Your task to perform on an android device: Show me some nice wallpapers for my laptop Image 0: 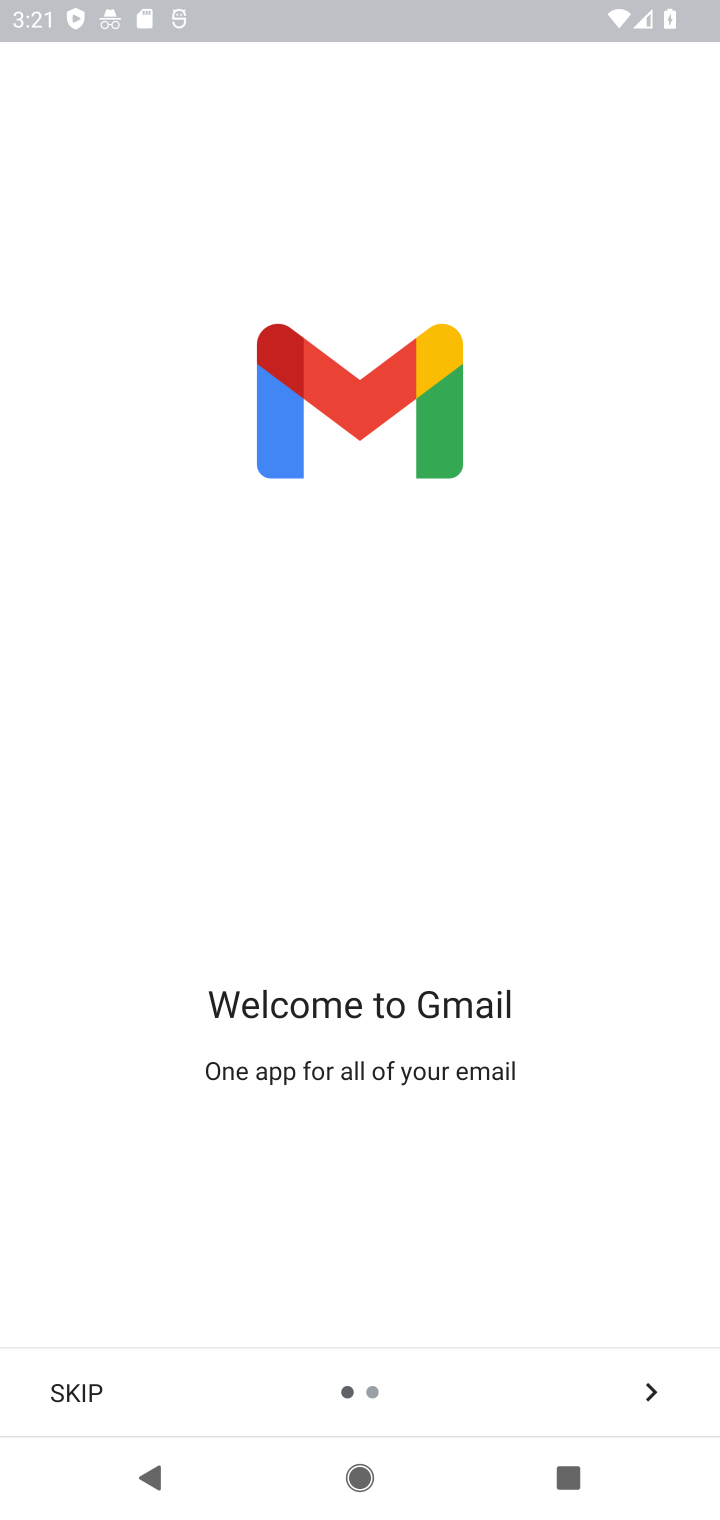
Step 0: press home button
Your task to perform on an android device: Show me some nice wallpapers for my laptop Image 1: 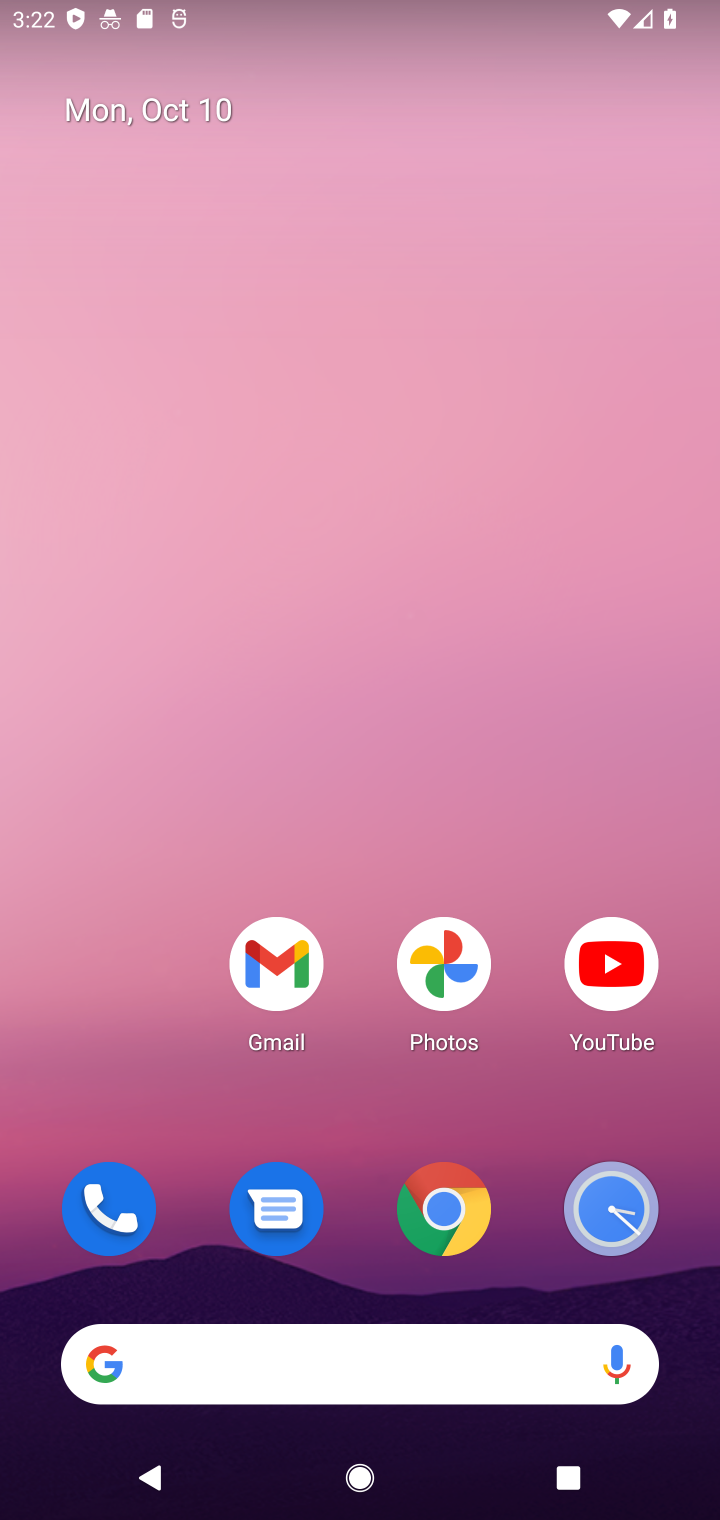
Step 1: click (456, 1215)
Your task to perform on an android device: Show me some nice wallpapers for my laptop Image 2: 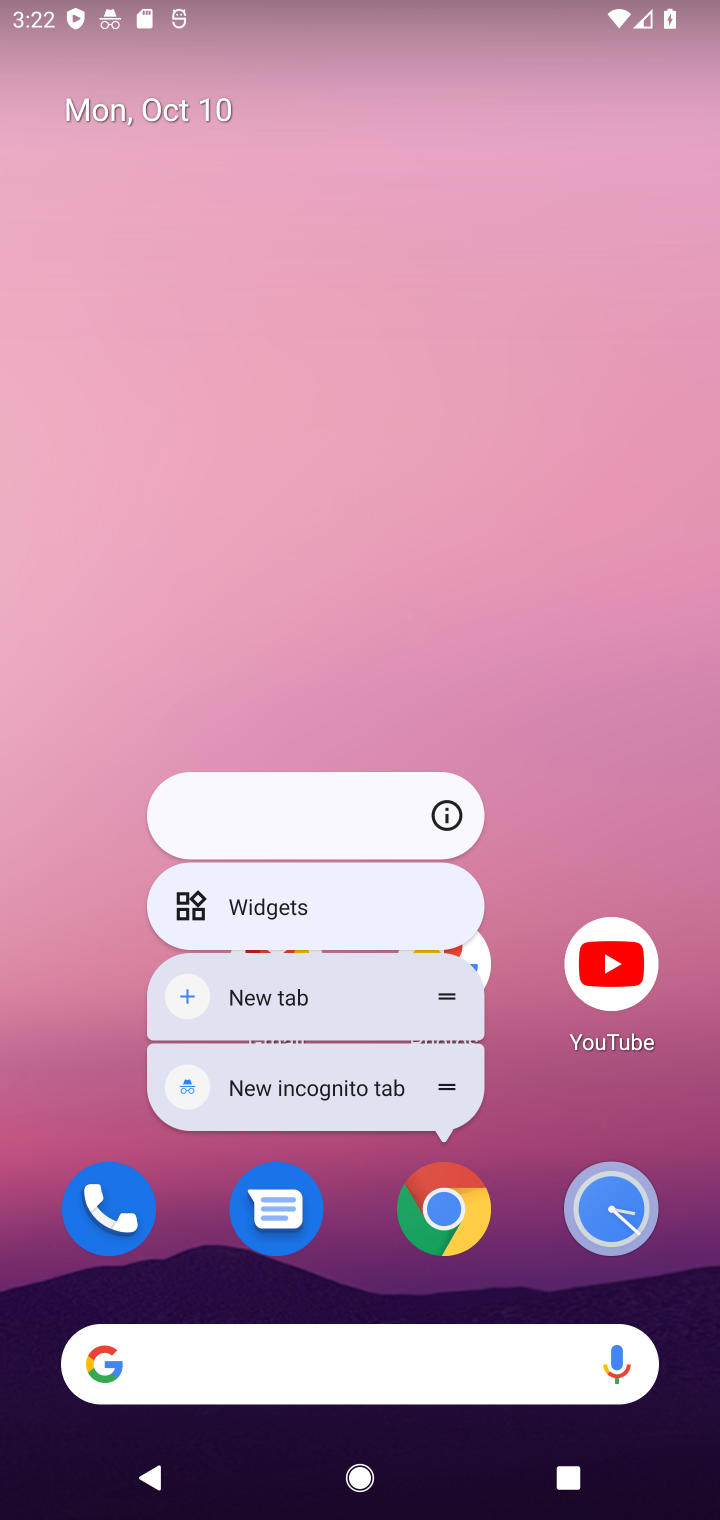
Step 2: click (431, 1220)
Your task to perform on an android device: Show me some nice wallpapers for my laptop Image 3: 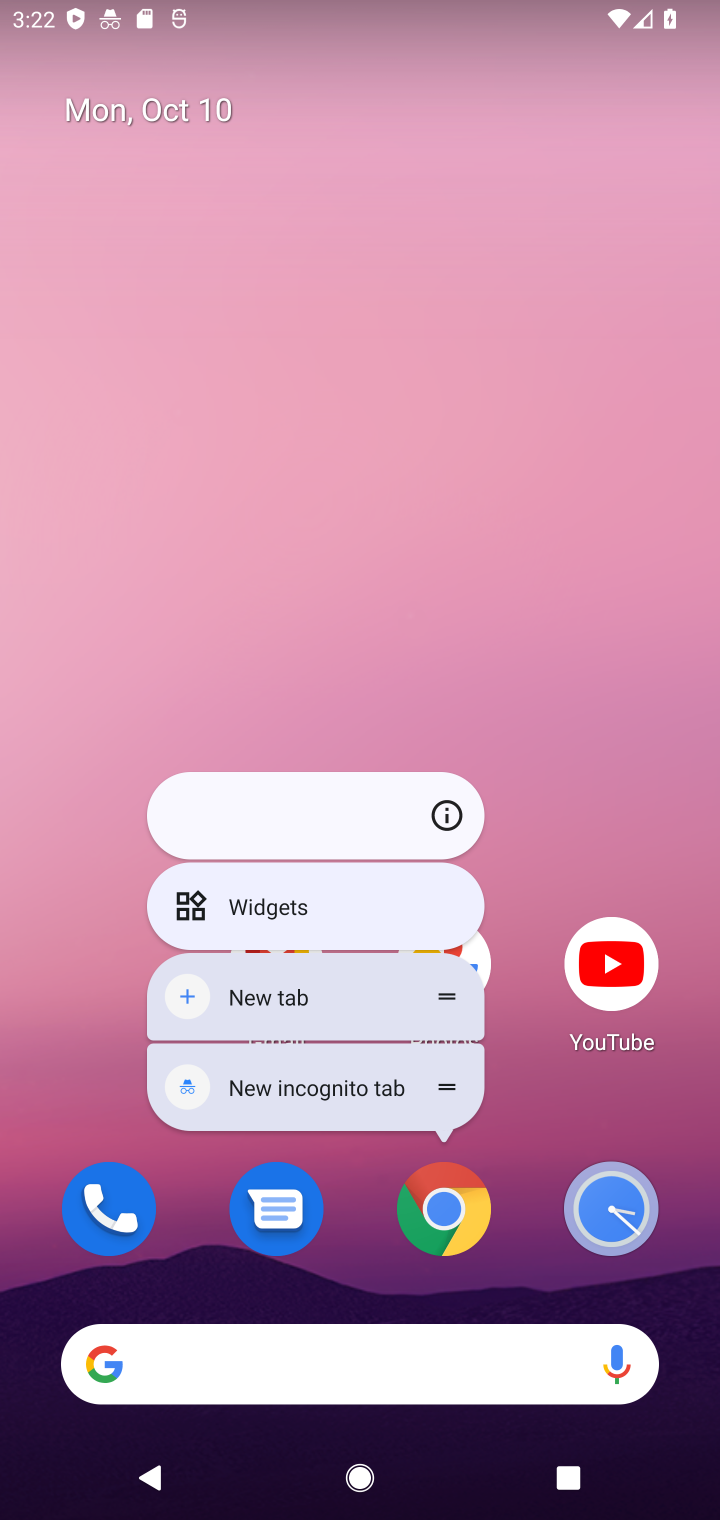
Step 3: click (431, 1220)
Your task to perform on an android device: Show me some nice wallpapers for my laptop Image 4: 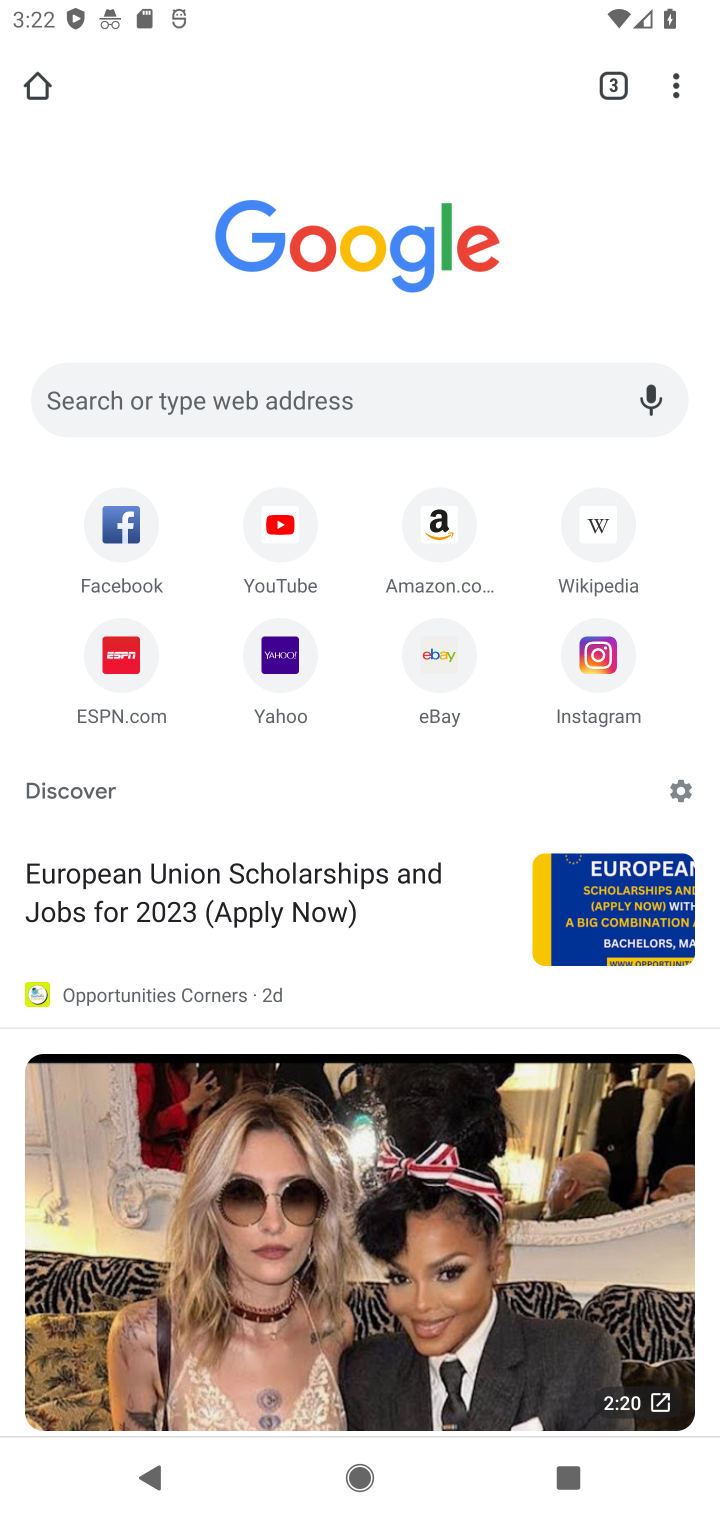
Step 4: click (276, 377)
Your task to perform on an android device: Show me some nice wallpapers for my laptop Image 5: 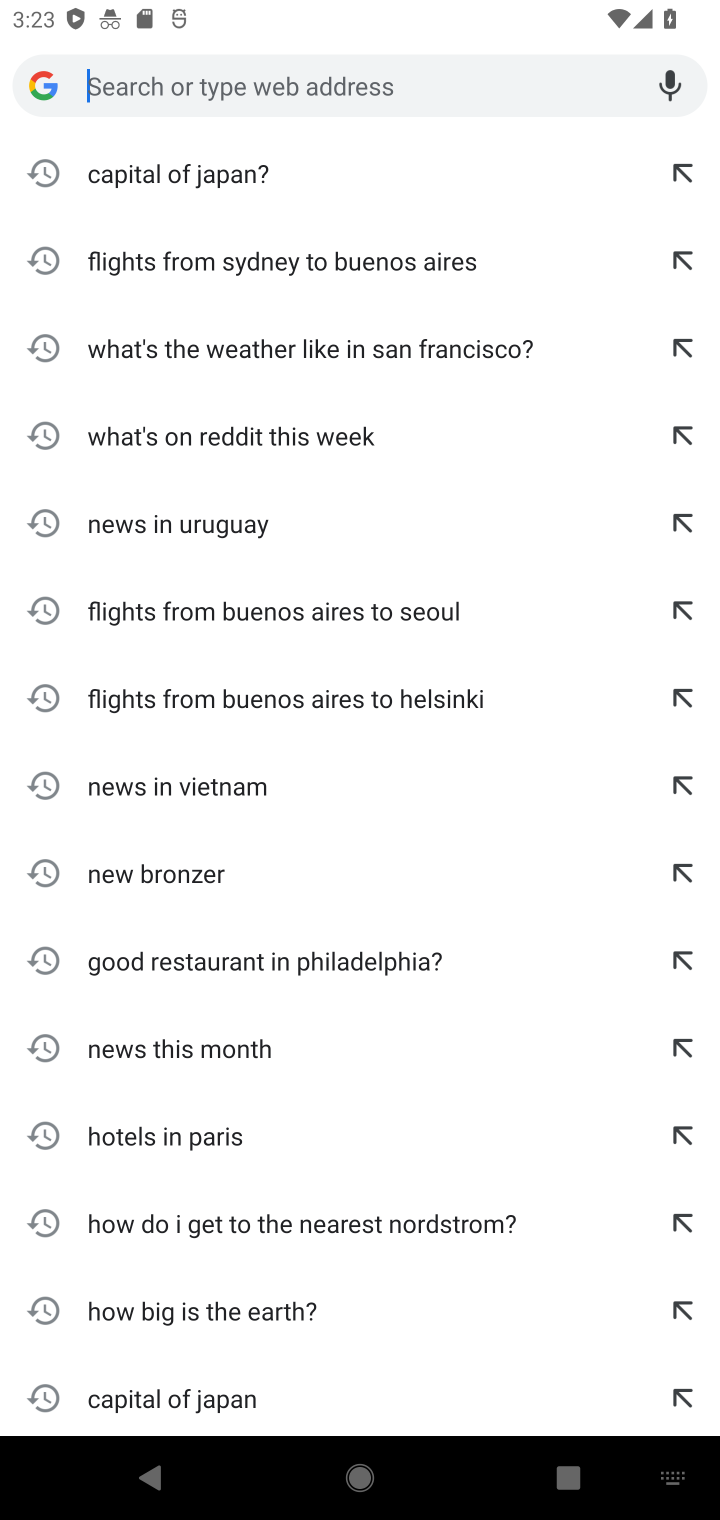
Step 5: type "some nice wallpapers for my laptop"
Your task to perform on an android device: Show me some nice wallpapers for my laptop Image 6: 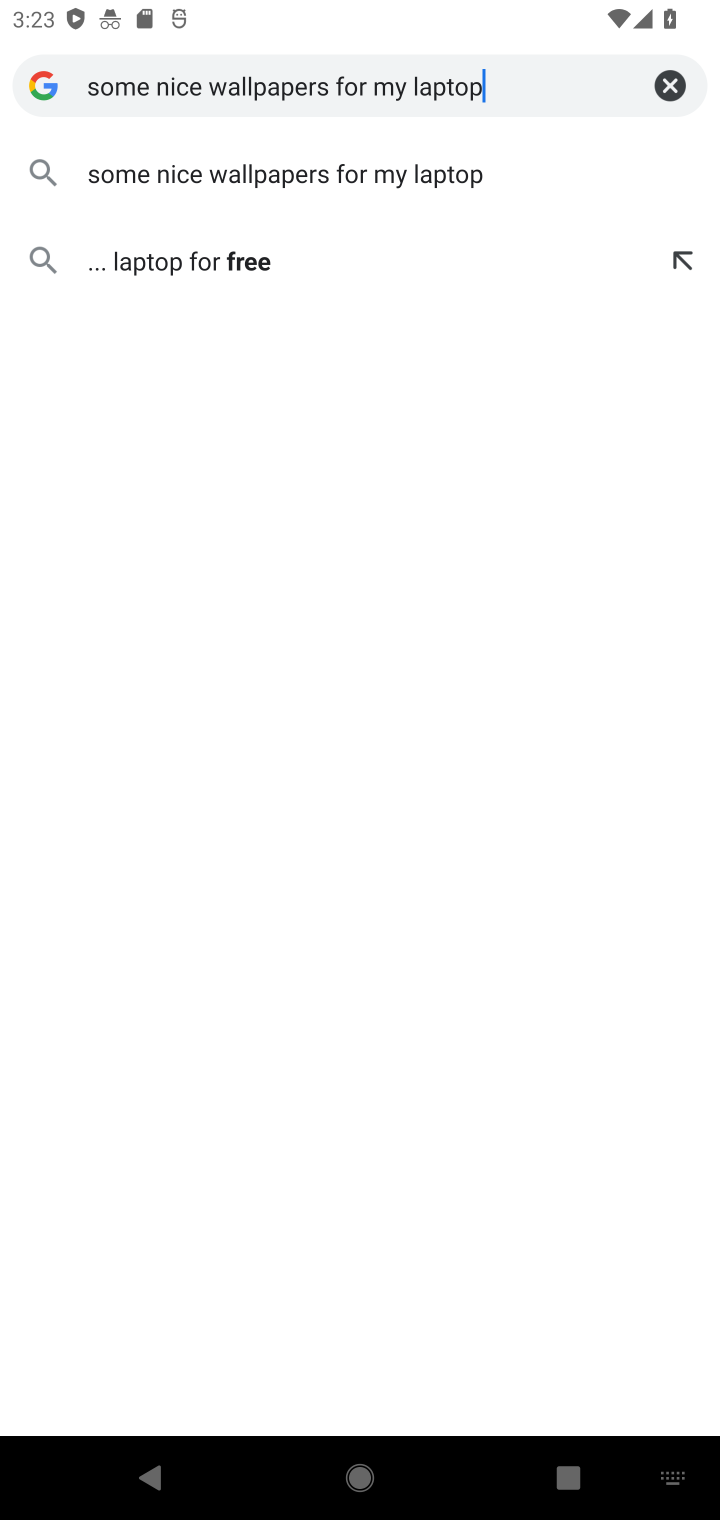
Step 6: press enter
Your task to perform on an android device: Show me some nice wallpapers for my laptop Image 7: 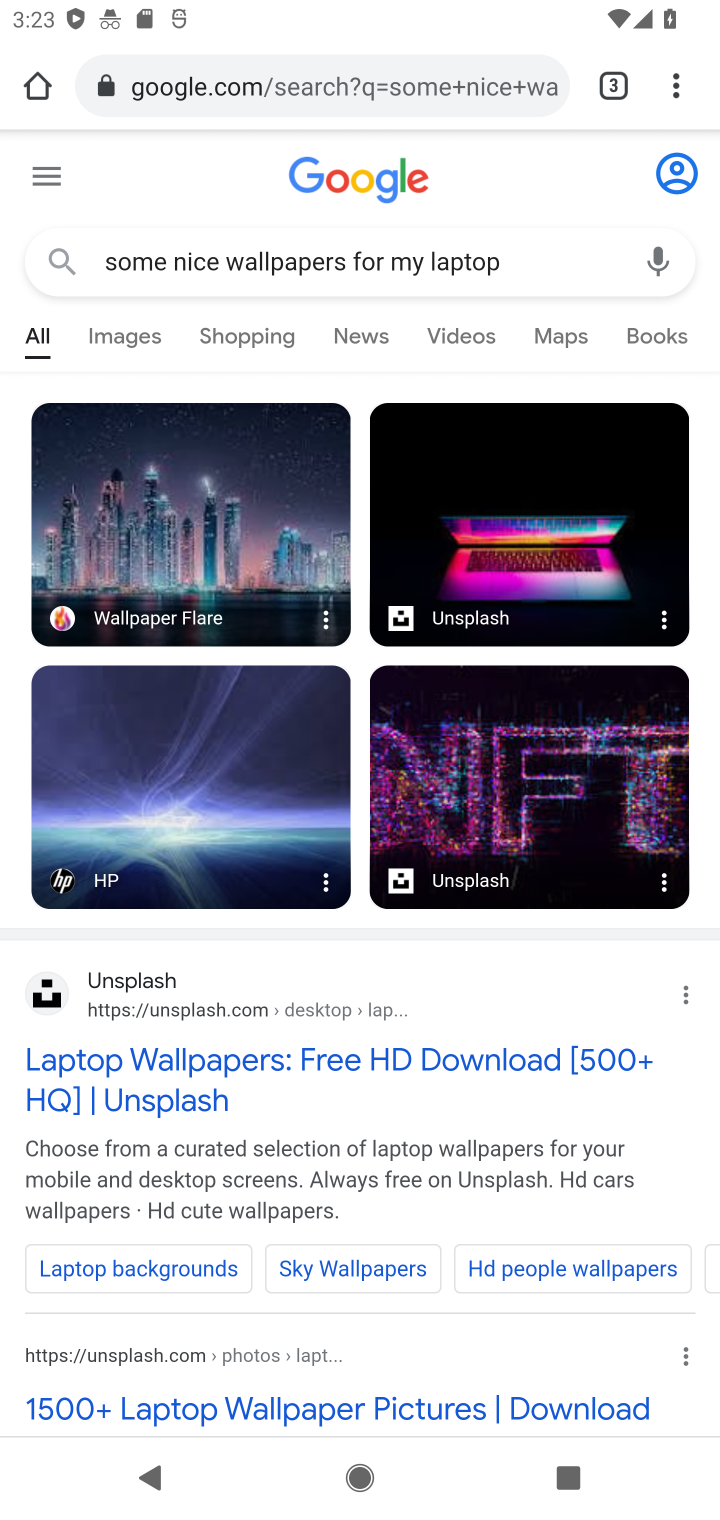
Step 7: click (123, 356)
Your task to perform on an android device: Show me some nice wallpapers for my laptop Image 8: 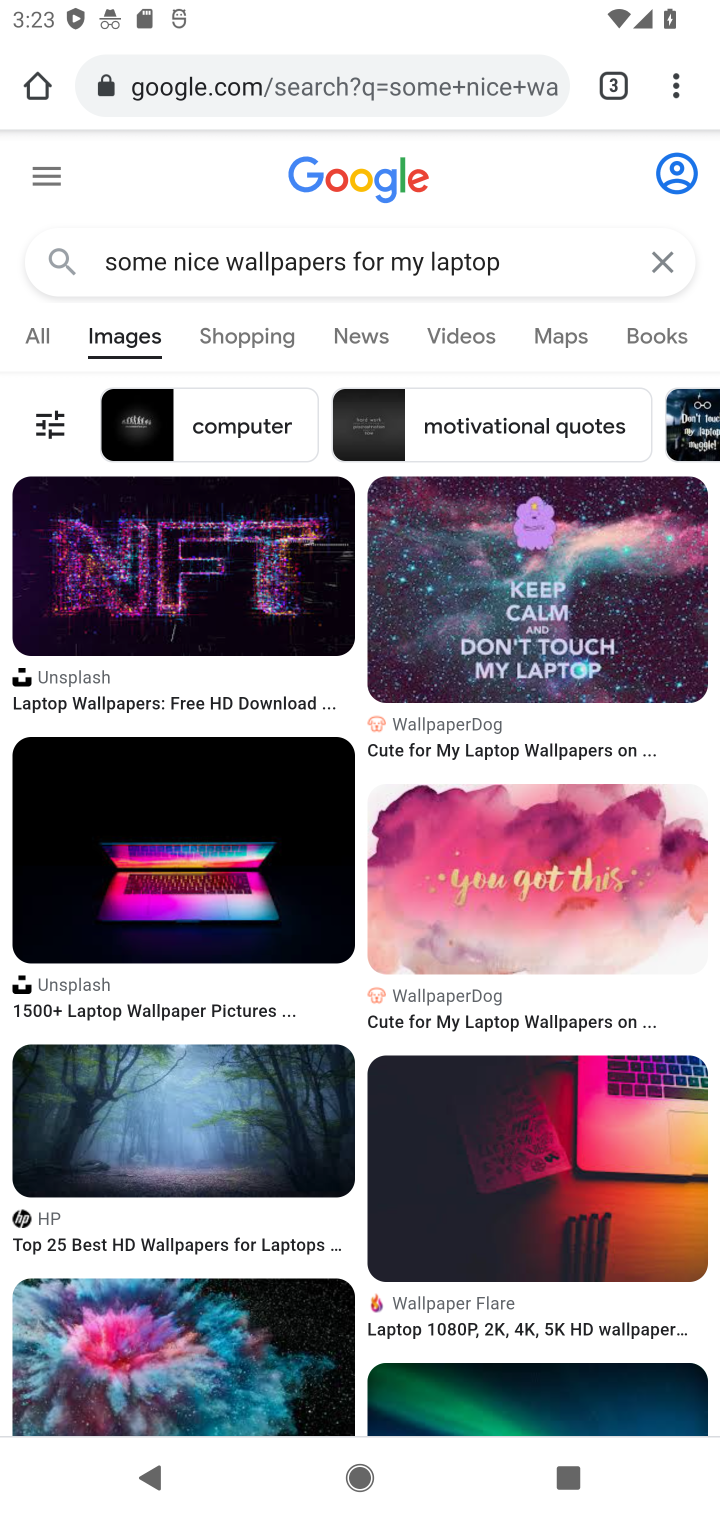
Step 8: task complete